Your task to perform on an android device: Open CNN.com Image 0: 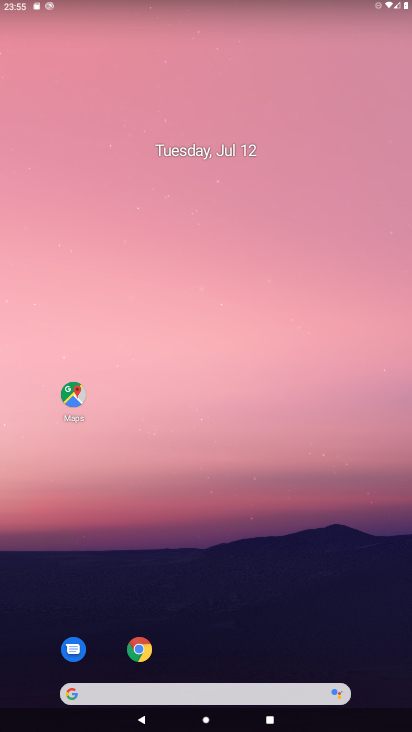
Step 0: click (140, 648)
Your task to perform on an android device: Open CNN.com Image 1: 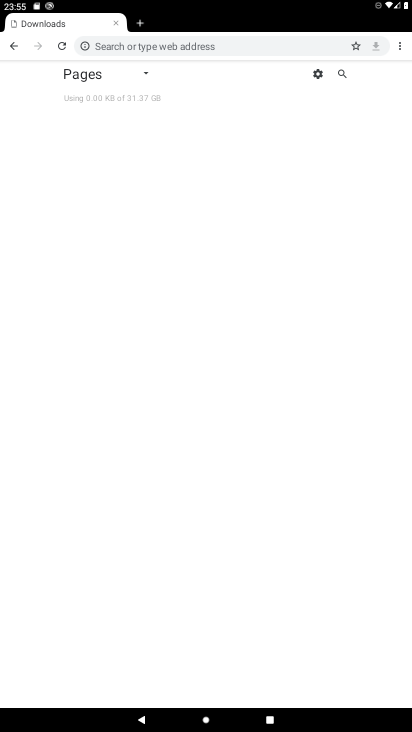
Step 1: click (209, 43)
Your task to perform on an android device: Open CNN.com Image 2: 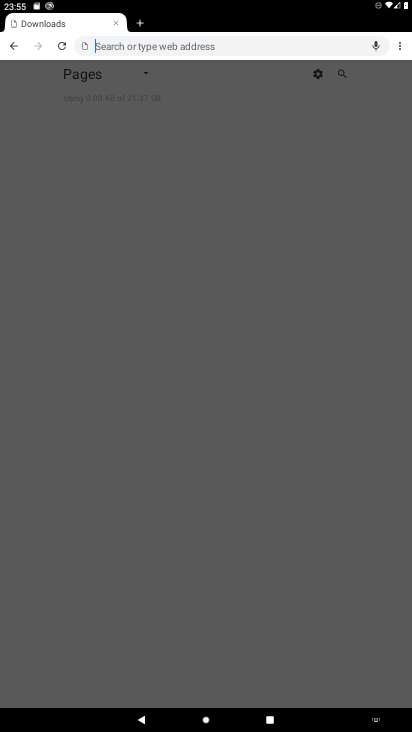
Step 2: type "CNN.com"
Your task to perform on an android device: Open CNN.com Image 3: 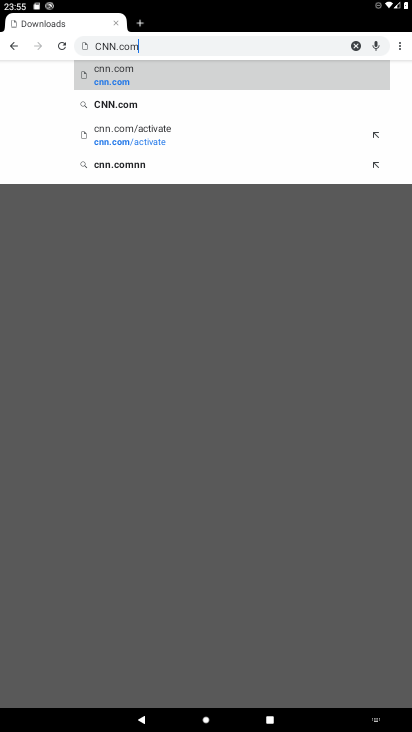
Step 3: click (107, 69)
Your task to perform on an android device: Open CNN.com Image 4: 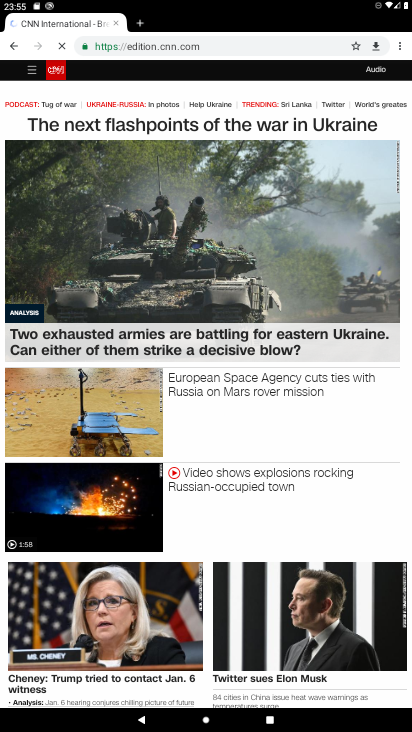
Step 4: task complete